Your task to perform on an android device: open app "Cash App" Image 0: 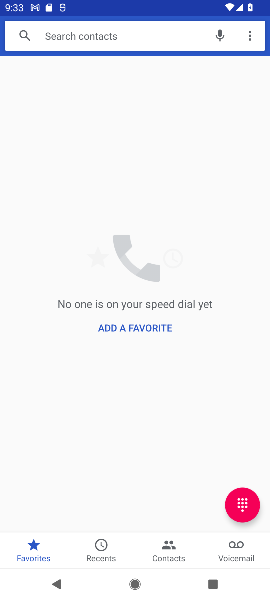
Step 0: press home button
Your task to perform on an android device: open app "Cash App" Image 1: 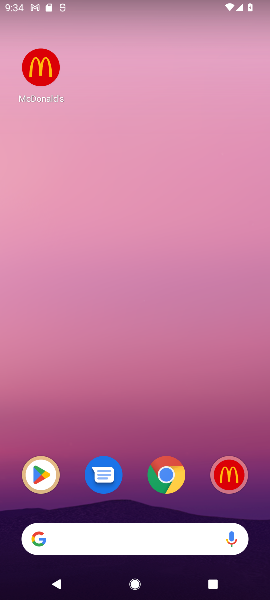
Step 1: drag from (150, 506) to (113, 86)
Your task to perform on an android device: open app "Cash App" Image 2: 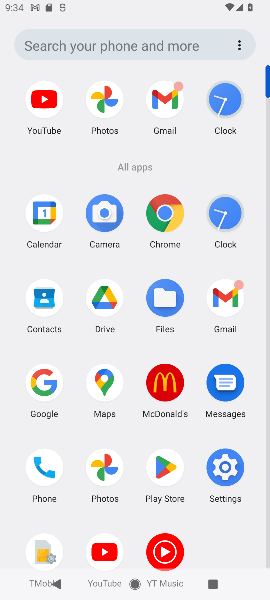
Step 2: click (156, 481)
Your task to perform on an android device: open app "Cash App" Image 3: 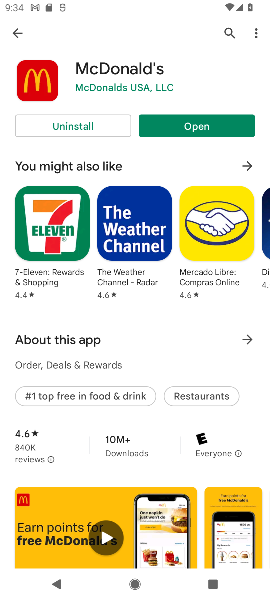
Step 3: click (7, 34)
Your task to perform on an android device: open app "Cash App" Image 4: 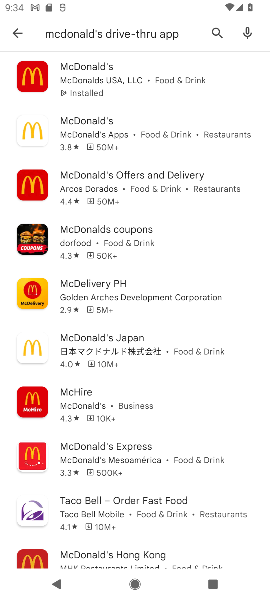
Step 4: click (27, 38)
Your task to perform on an android device: open app "Cash App" Image 5: 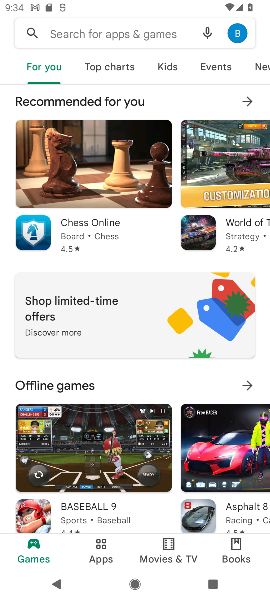
Step 5: click (104, 37)
Your task to perform on an android device: open app "Cash App" Image 6: 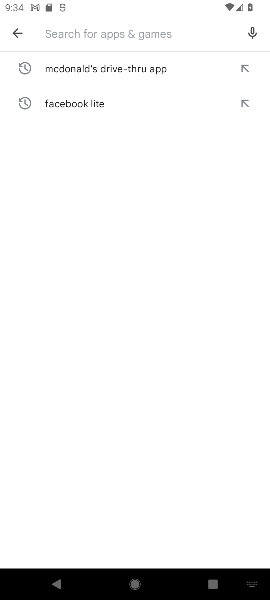
Step 6: type "Cash App"
Your task to perform on an android device: open app "Cash App" Image 7: 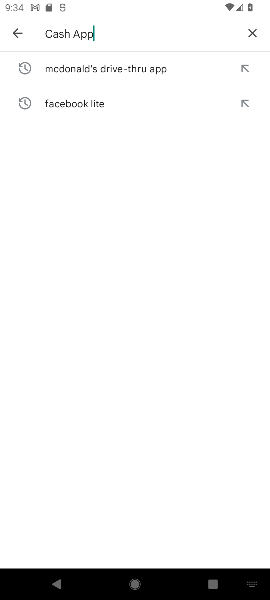
Step 7: type ""
Your task to perform on an android device: open app "Cash App" Image 8: 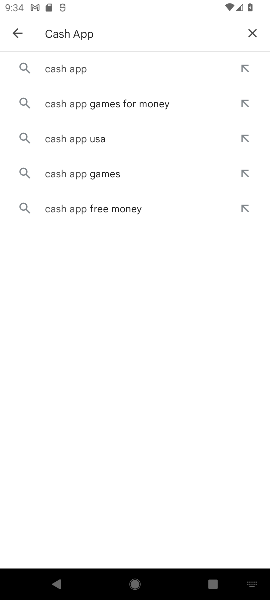
Step 8: click (69, 71)
Your task to perform on an android device: open app "Cash App" Image 9: 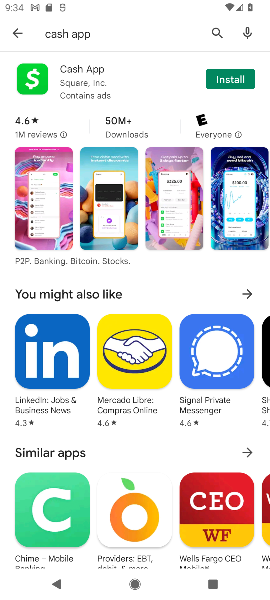
Step 9: task complete